Your task to perform on an android device: turn off airplane mode Image 0: 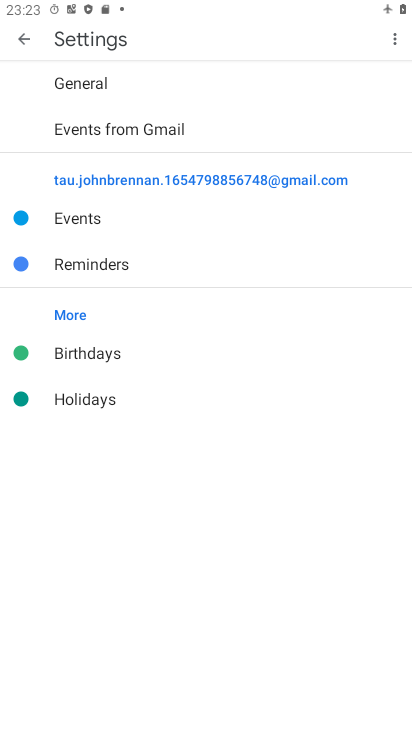
Step 0: press home button
Your task to perform on an android device: turn off airplane mode Image 1: 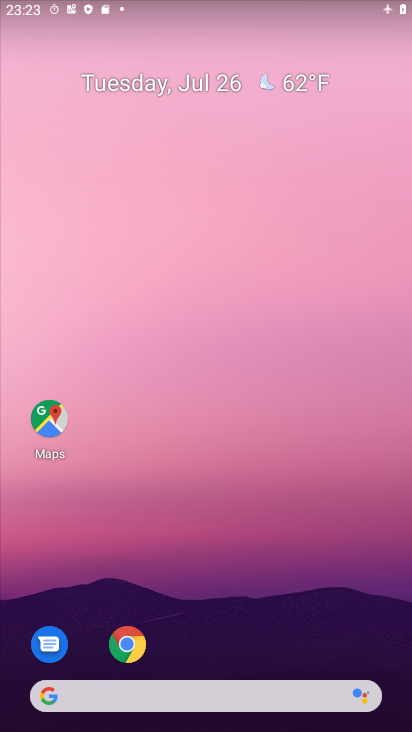
Step 1: drag from (179, 573) to (197, 47)
Your task to perform on an android device: turn off airplane mode Image 2: 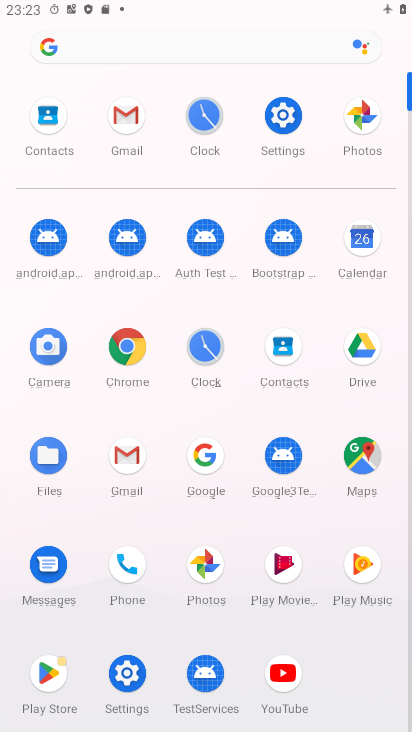
Step 2: click (281, 116)
Your task to perform on an android device: turn off airplane mode Image 3: 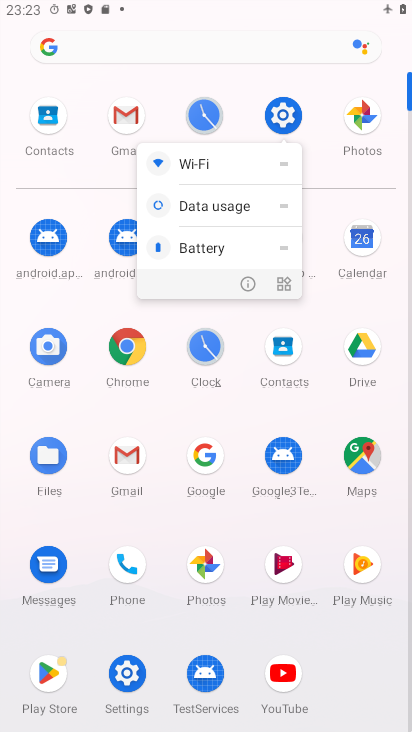
Step 3: click (281, 116)
Your task to perform on an android device: turn off airplane mode Image 4: 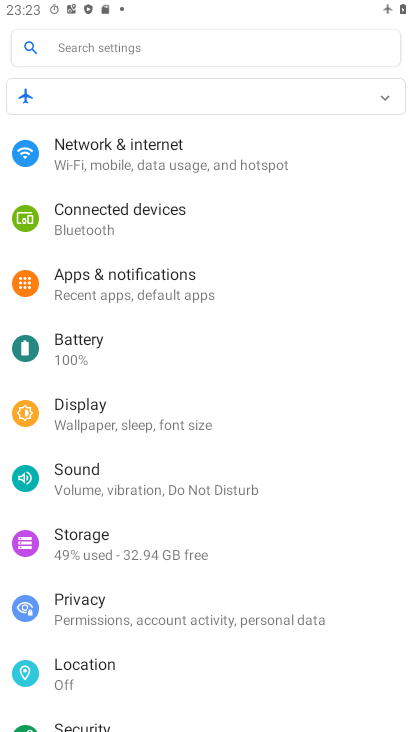
Step 4: click (137, 164)
Your task to perform on an android device: turn off airplane mode Image 5: 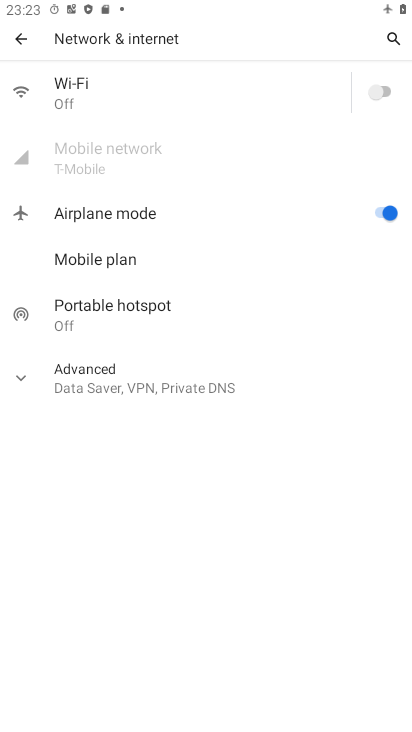
Step 5: click (383, 215)
Your task to perform on an android device: turn off airplane mode Image 6: 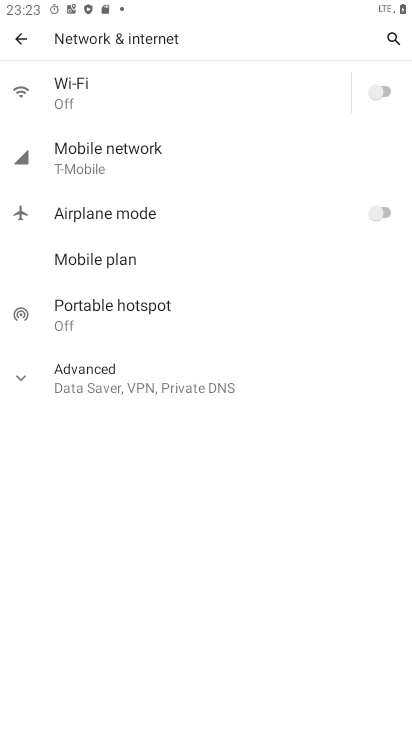
Step 6: task complete